Your task to perform on an android device: Open calendar and show me the second week of next month Image 0: 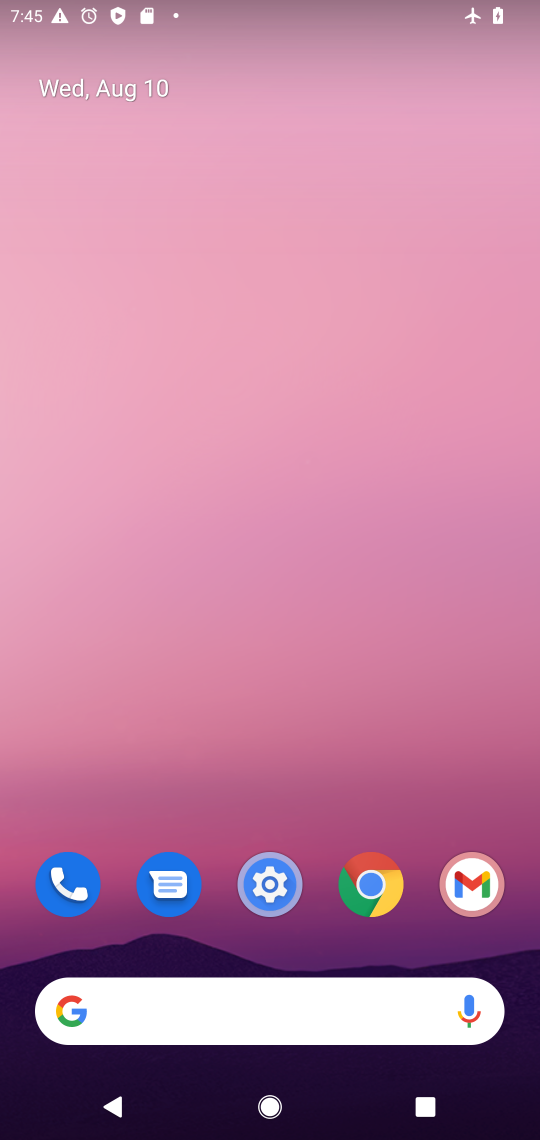
Step 0: drag from (36, 1088) to (436, 102)
Your task to perform on an android device: Open calendar and show me the second week of next month Image 1: 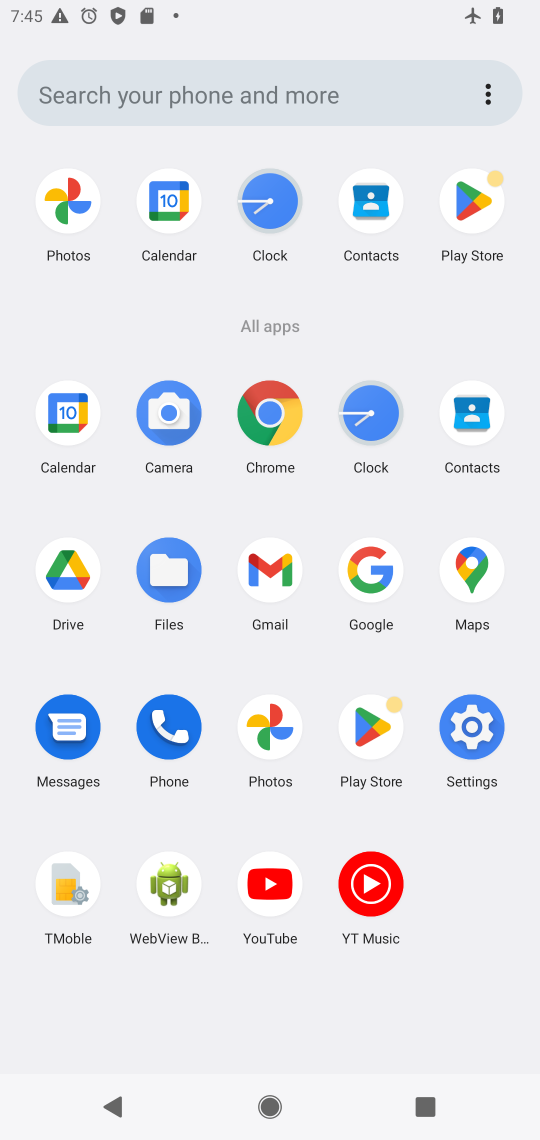
Step 1: click (52, 433)
Your task to perform on an android device: Open calendar and show me the second week of next month Image 2: 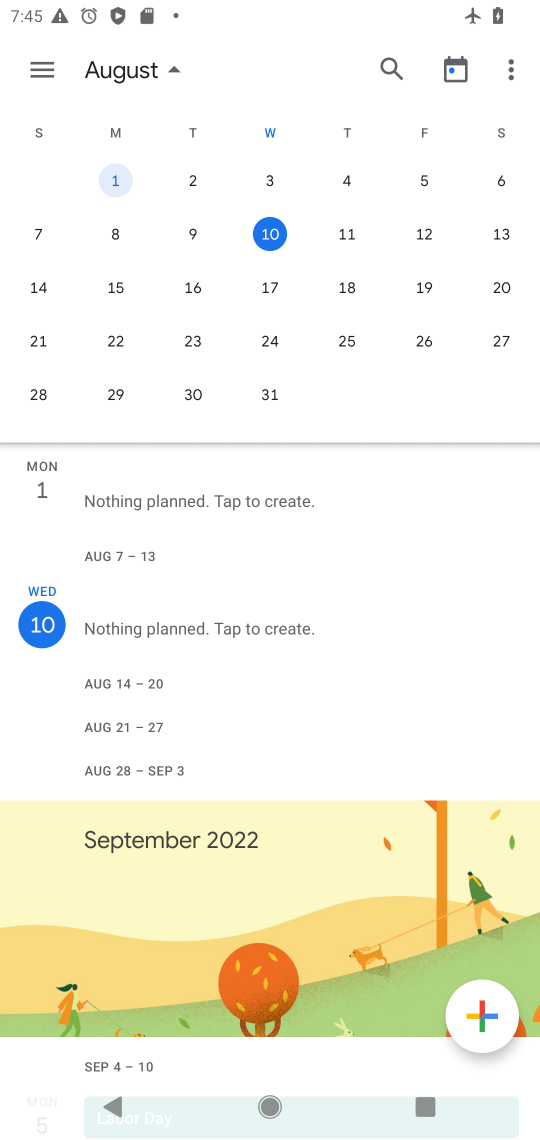
Step 2: drag from (528, 195) to (123, 204)
Your task to perform on an android device: Open calendar and show me the second week of next month Image 3: 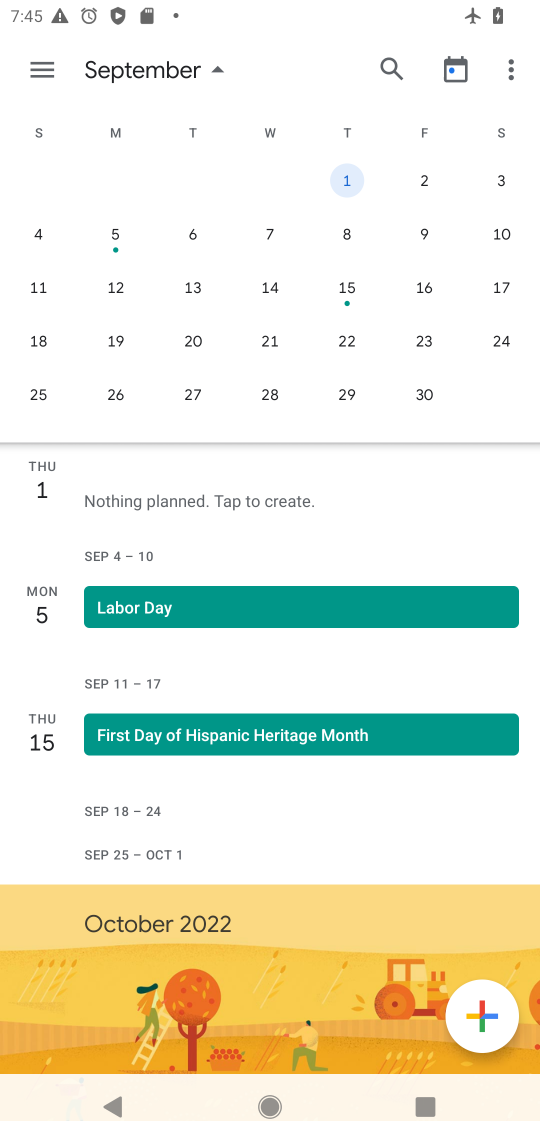
Step 3: click (120, 244)
Your task to perform on an android device: Open calendar and show me the second week of next month Image 4: 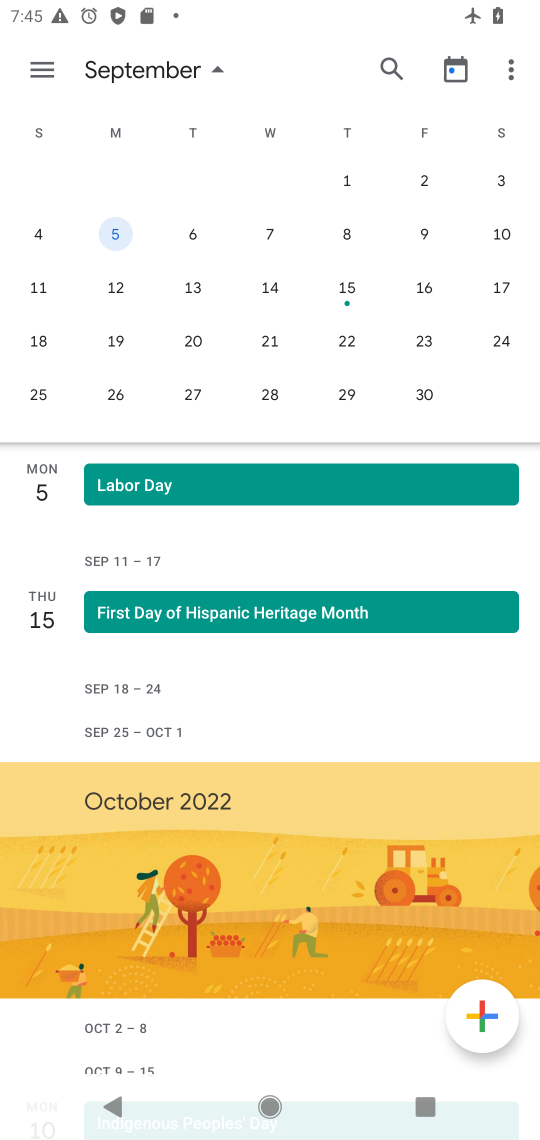
Step 4: task complete